Your task to perform on an android device: open device folders in google photos Image 0: 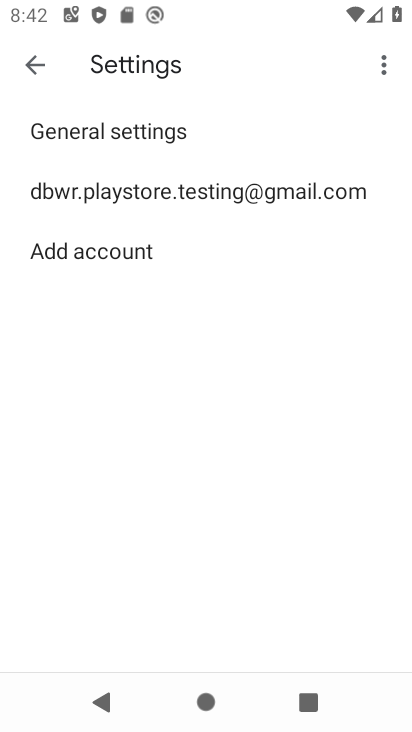
Step 0: press home button
Your task to perform on an android device: open device folders in google photos Image 1: 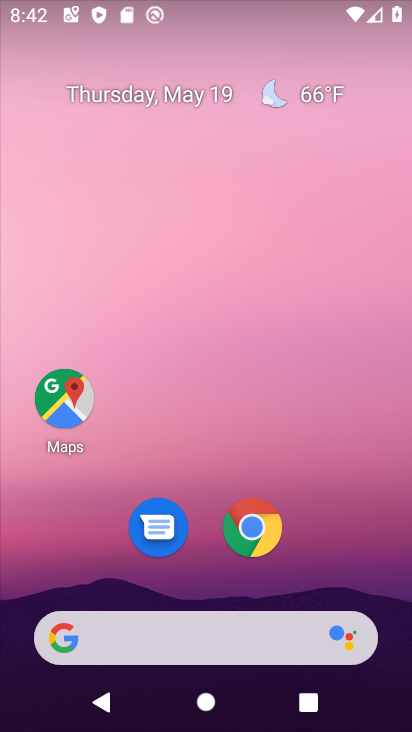
Step 1: drag from (328, 581) to (290, 82)
Your task to perform on an android device: open device folders in google photos Image 2: 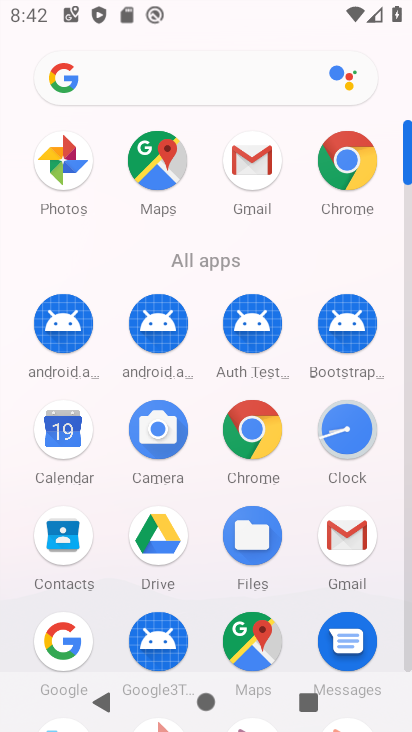
Step 2: drag from (196, 594) to (196, 162)
Your task to perform on an android device: open device folders in google photos Image 3: 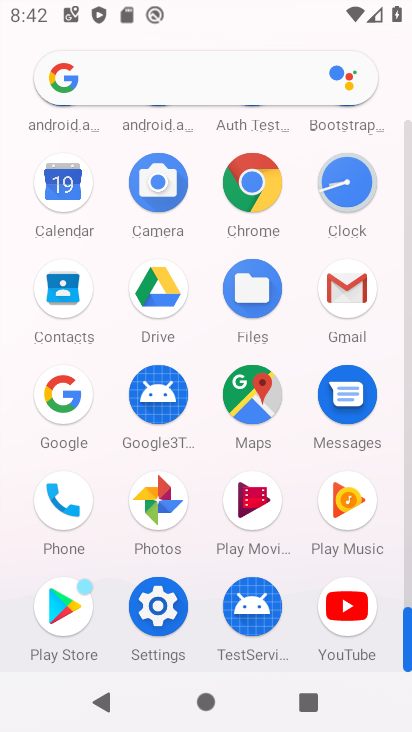
Step 3: click (140, 508)
Your task to perform on an android device: open device folders in google photos Image 4: 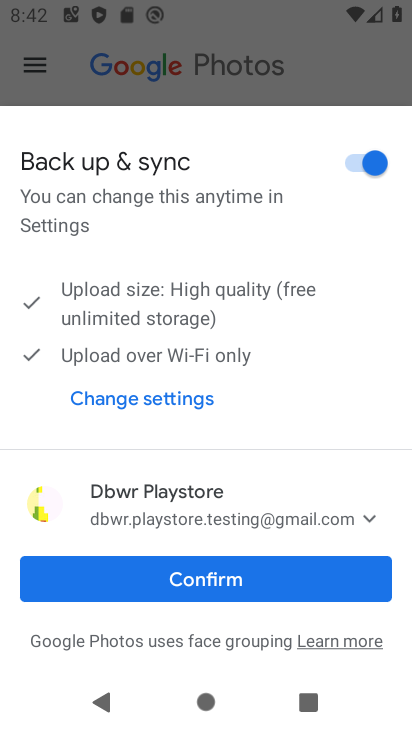
Step 4: click (142, 564)
Your task to perform on an android device: open device folders in google photos Image 5: 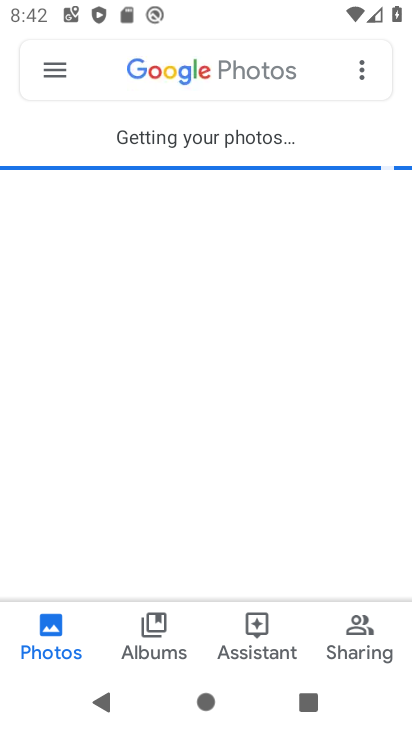
Step 5: click (55, 91)
Your task to perform on an android device: open device folders in google photos Image 6: 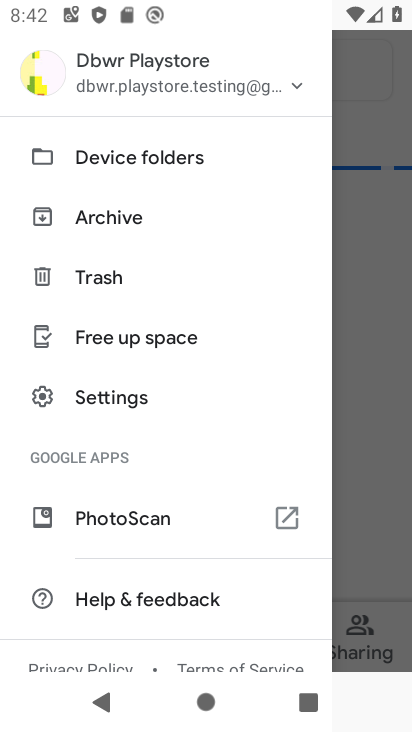
Step 6: click (96, 166)
Your task to perform on an android device: open device folders in google photos Image 7: 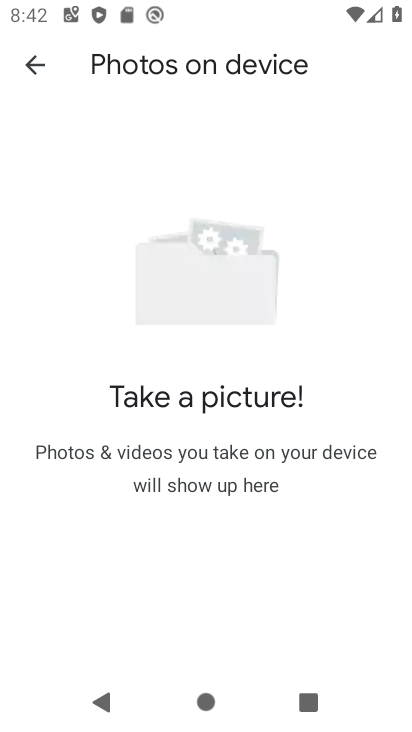
Step 7: task complete